Your task to perform on an android device: toggle show notifications on the lock screen Image 0: 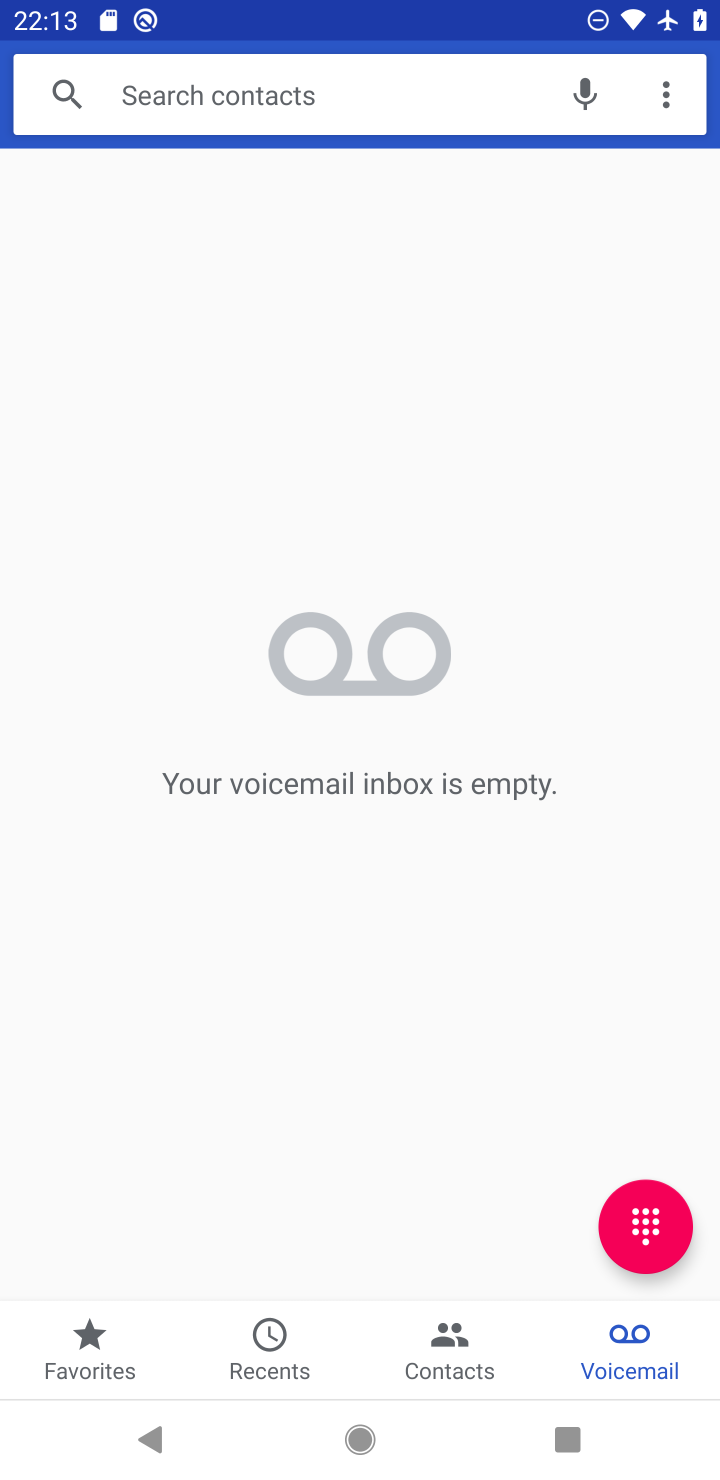
Step 0: press home button
Your task to perform on an android device: toggle show notifications on the lock screen Image 1: 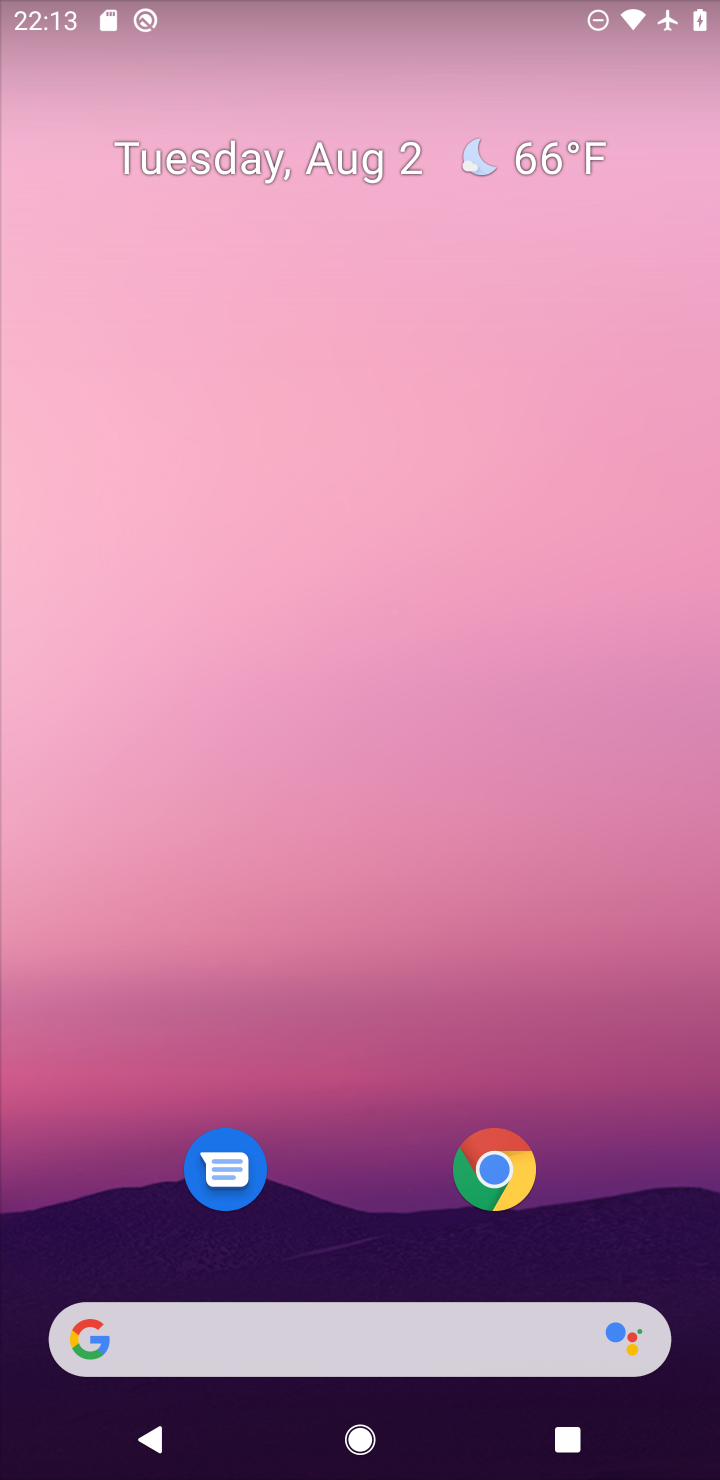
Step 1: drag from (353, 1243) to (305, 51)
Your task to perform on an android device: toggle show notifications on the lock screen Image 2: 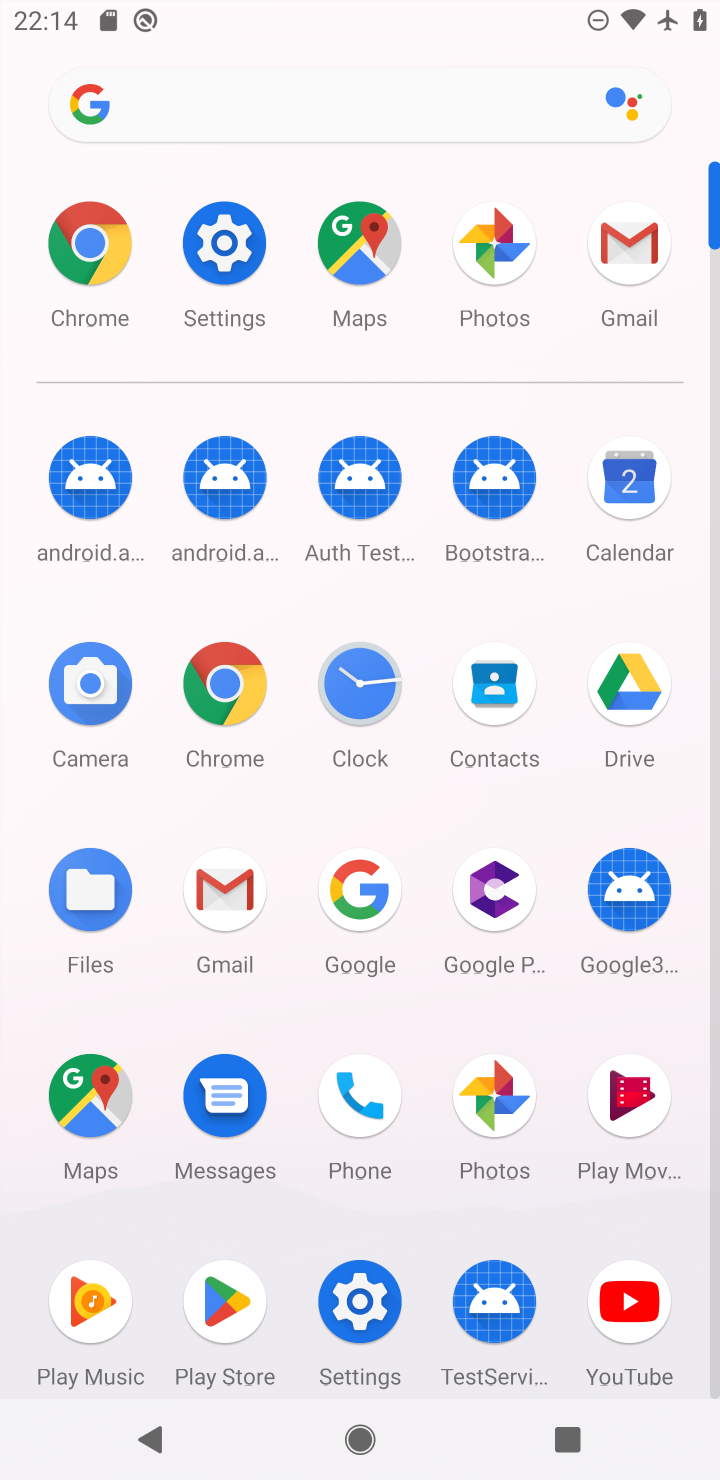
Step 2: click (204, 234)
Your task to perform on an android device: toggle show notifications on the lock screen Image 3: 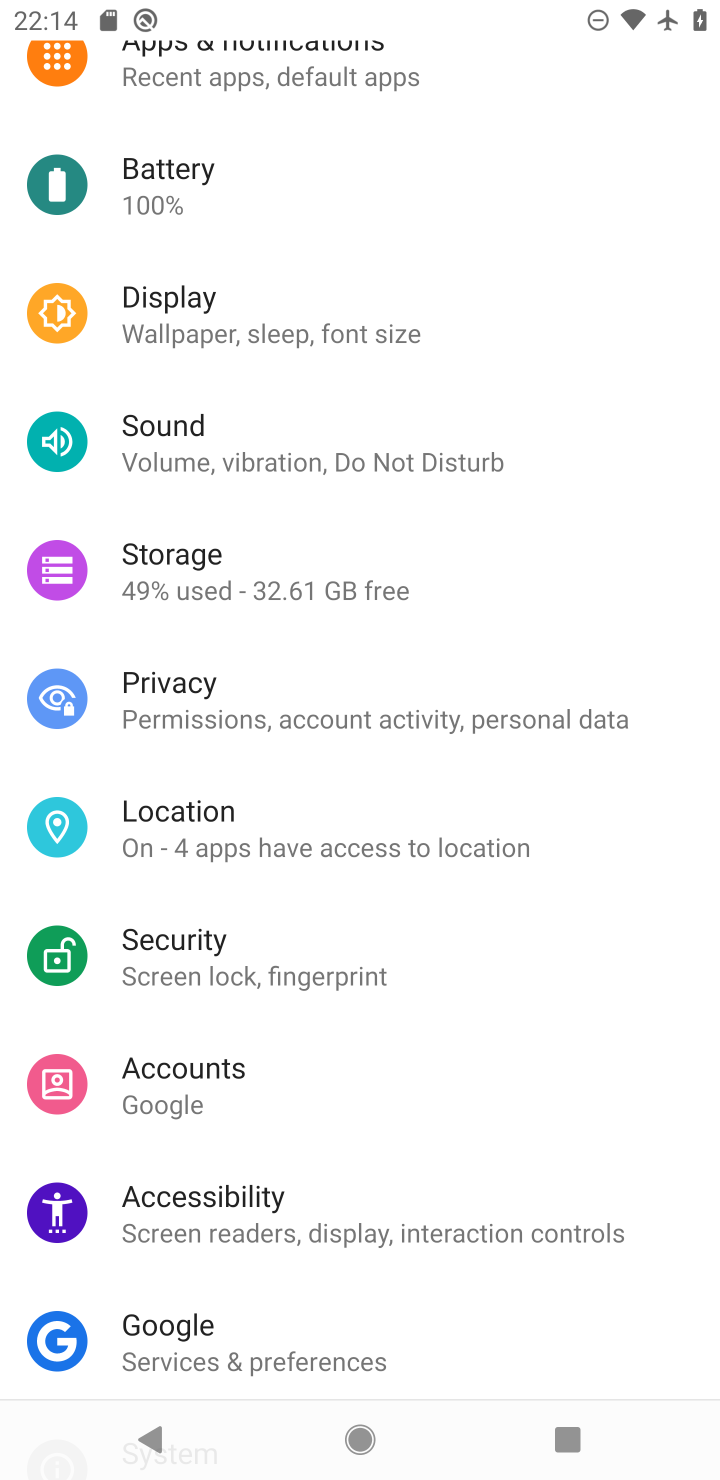
Step 3: drag from (346, 275) to (413, 1191)
Your task to perform on an android device: toggle show notifications on the lock screen Image 4: 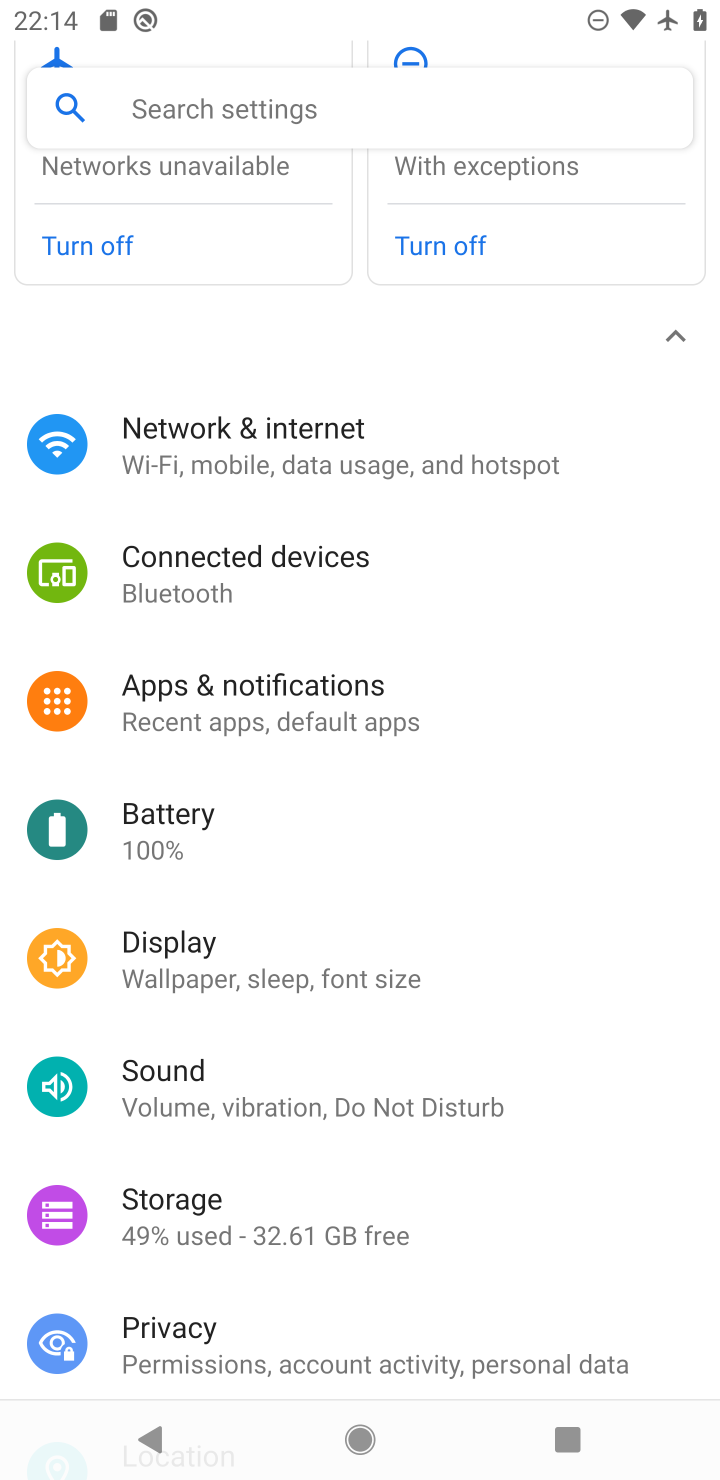
Step 4: click (299, 700)
Your task to perform on an android device: toggle show notifications on the lock screen Image 5: 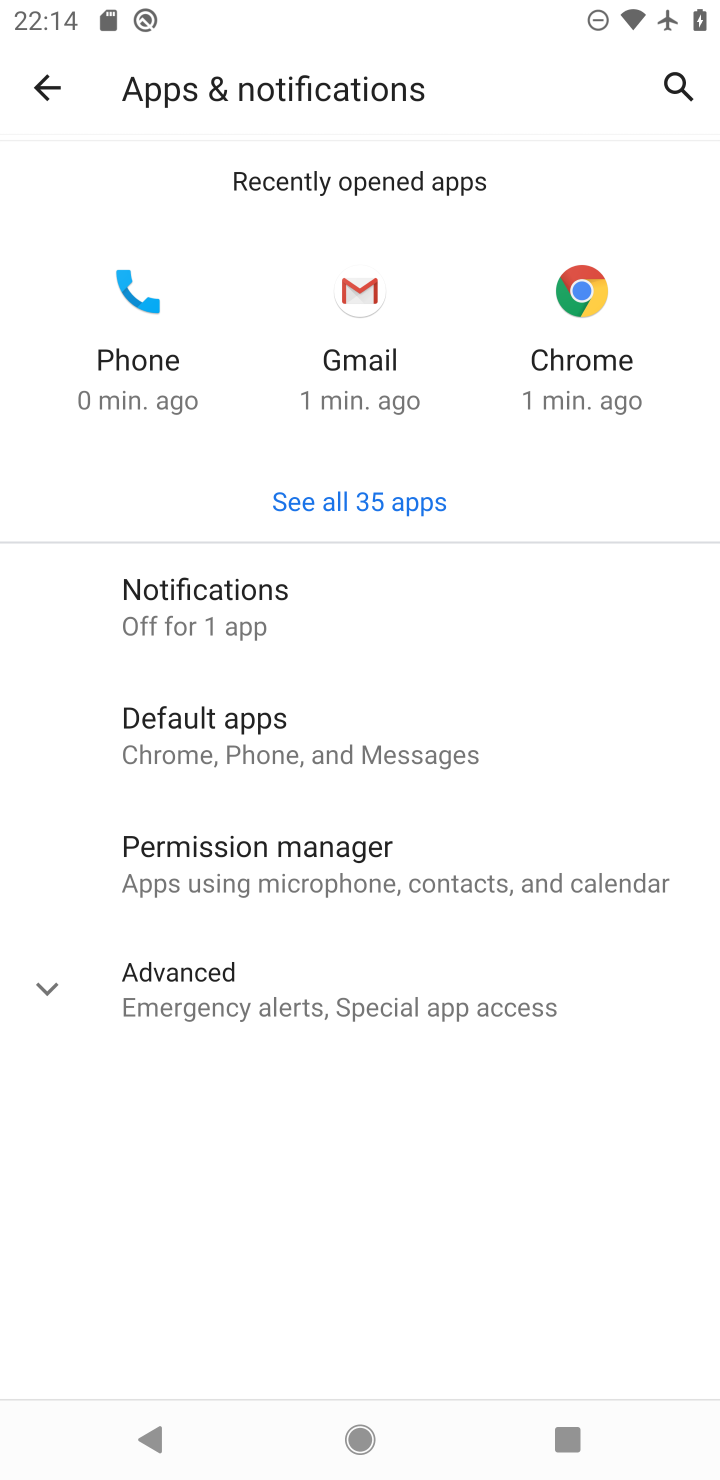
Step 5: click (212, 605)
Your task to perform on an android device: toggle show notifications on the lock screen Image 6: 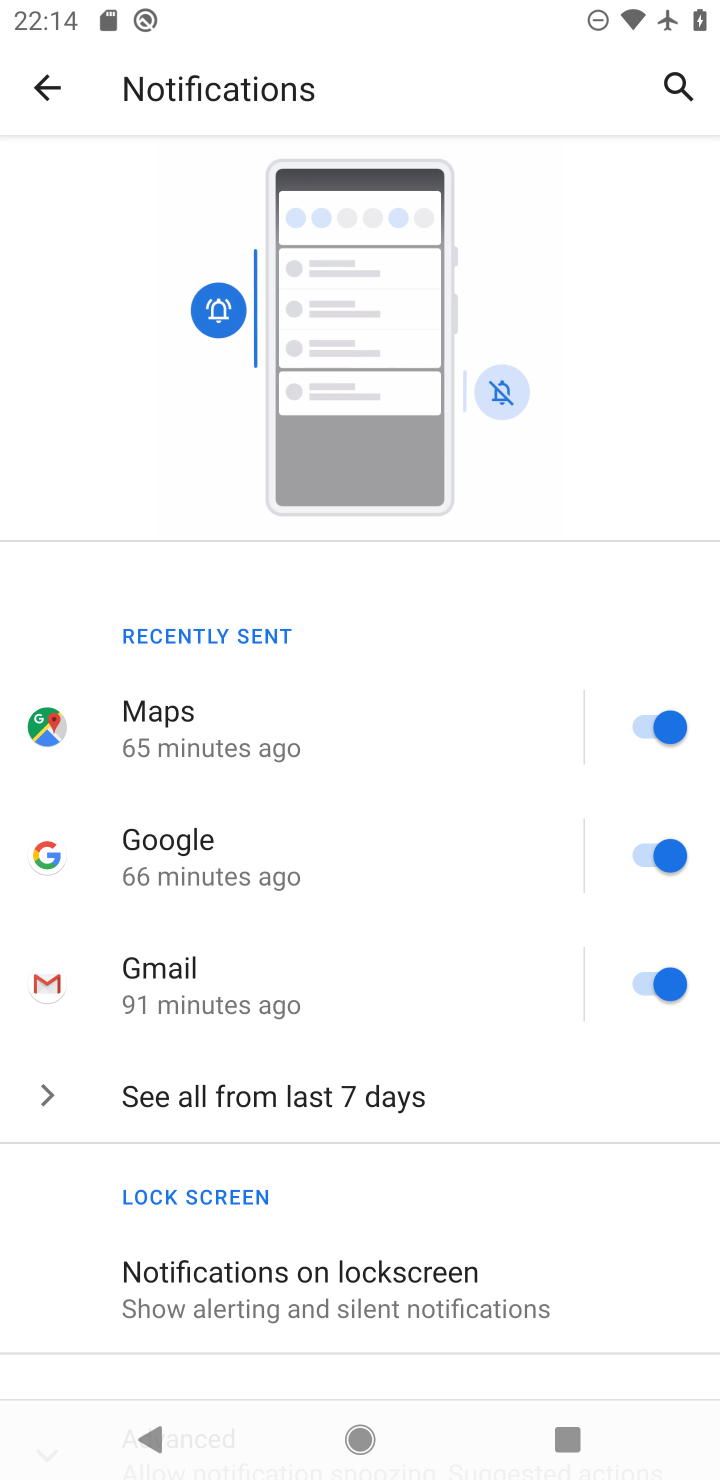
Step 6: click (407, 1279)
Your task to perform on an android device: toggle show notifications on the lock screen Image 7: 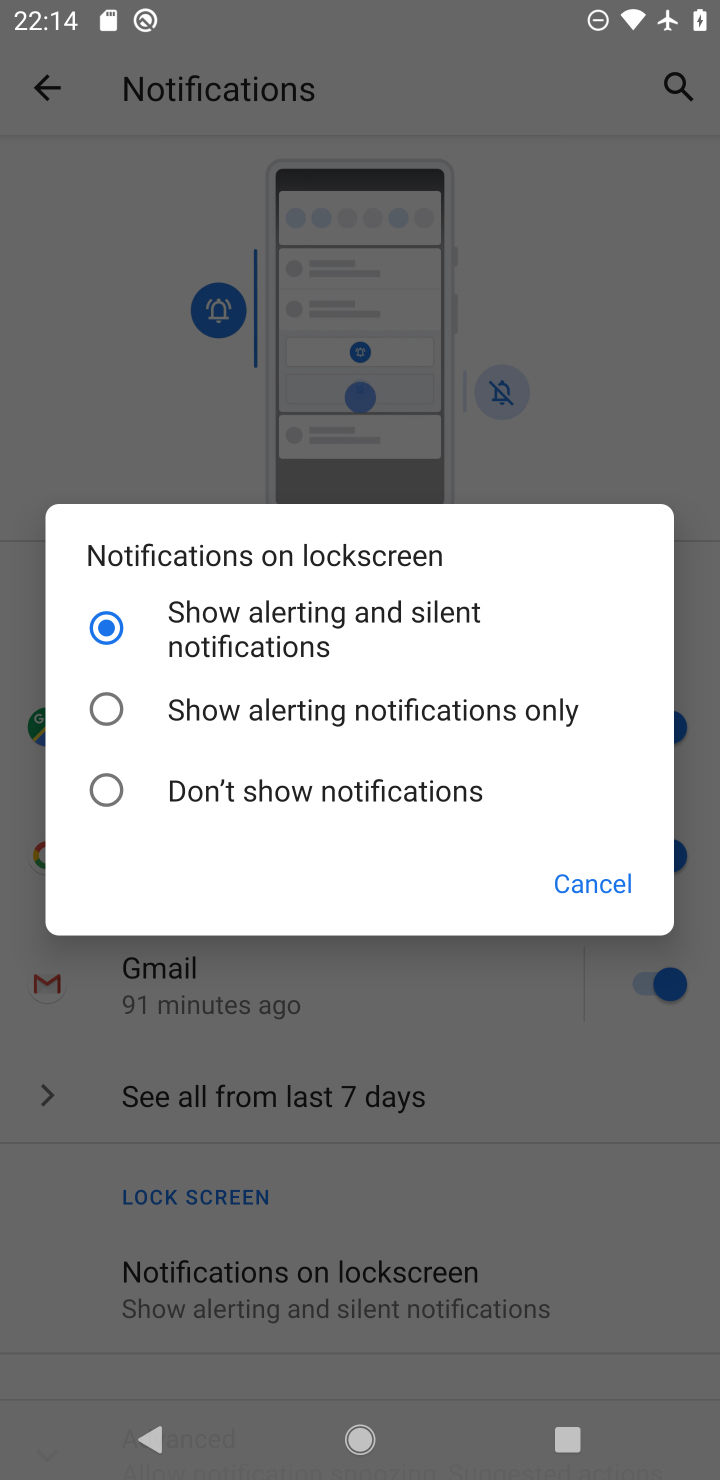
Step 7: click (117, 717)
Your task to perform on an android device: toggle show notifications on the lock screen Image 8: 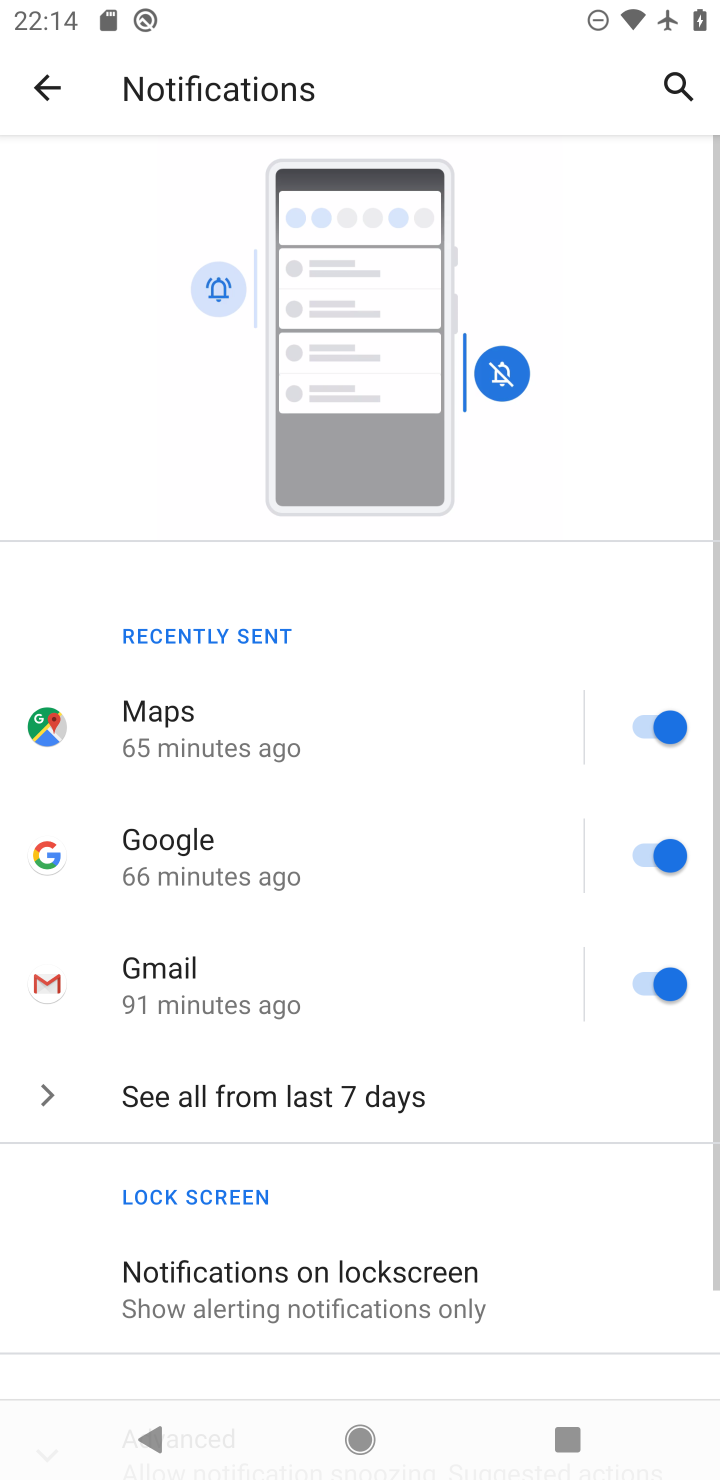
Step 8: task complete